Your task to perform on an android device: Open privacy settings Image 0: 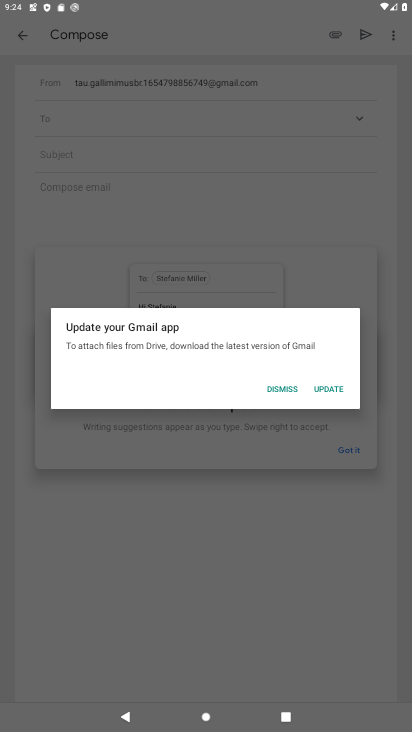
Step 0: press home button
Your task to perform on an android device: Open privacy settings Image 1: 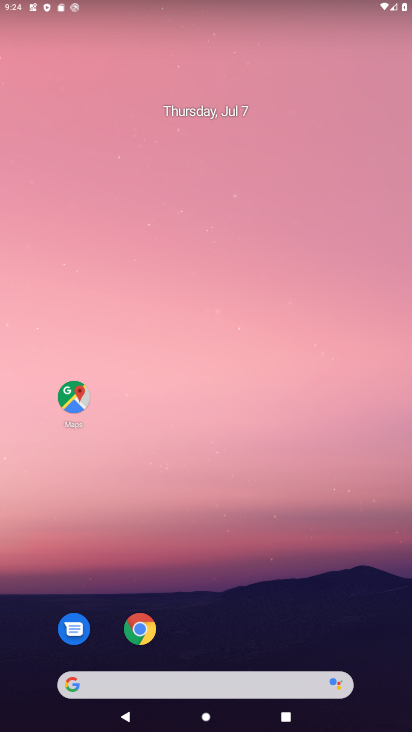
Step 1: drag from (269, 571) to (218, 281)
Your task to perform on an android device: Open privacy settings Image 2: 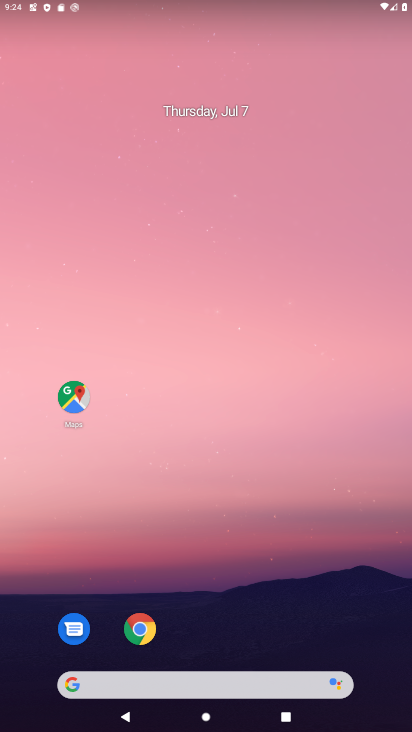
Step 2: drag from (235, 571) to (264, 44)
Your task to perform on an android device: Open privacy settings Image 3: 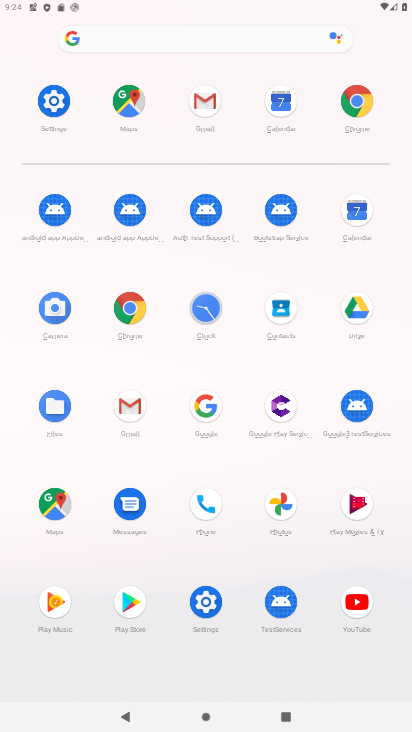
Step 3: click (55, 101)
Your task to perform on an android device: Open privacy settings Image 4: 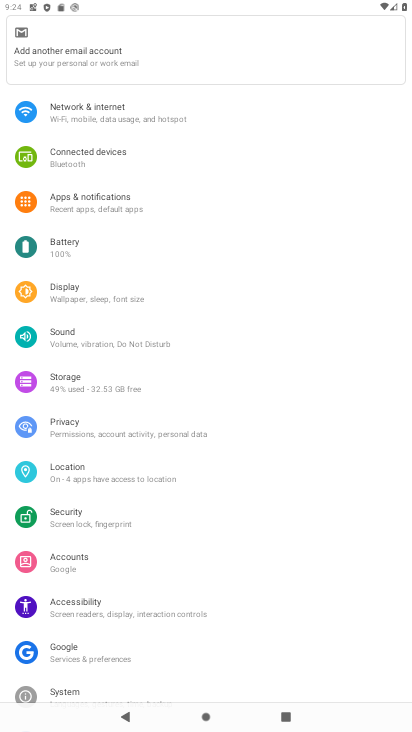
Step 4: click (67, 421)
Your task to perform on an android device: Open privacy settings Image 5: 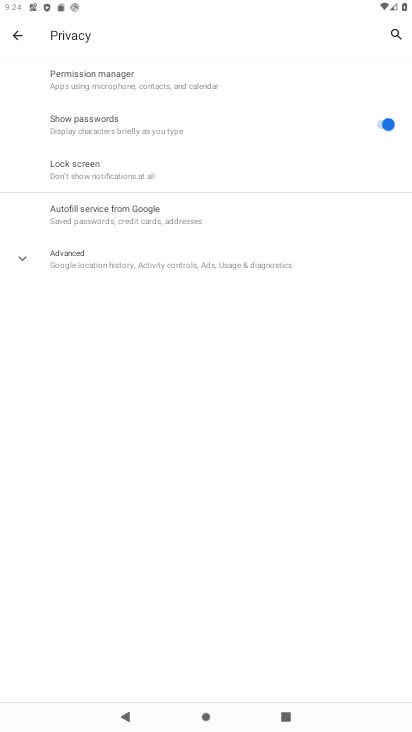
Step 5: task complete